Your task to perform on an android device: Show me productivity apps on the Play Store Image 0: 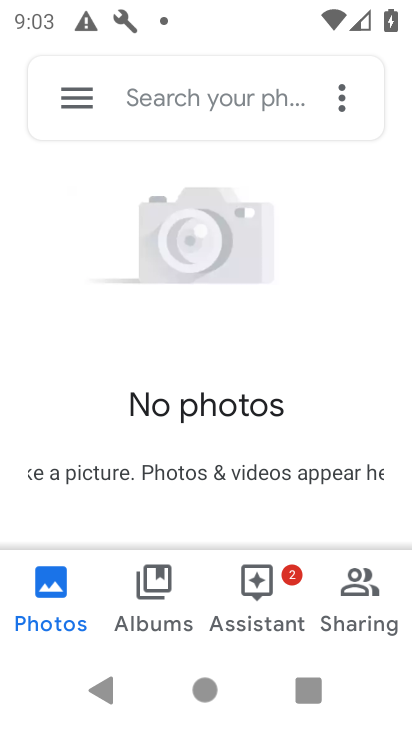
Step 0: press back button
Your task to perform on an android device: Show me productivity apps on the Play Store Image 1: 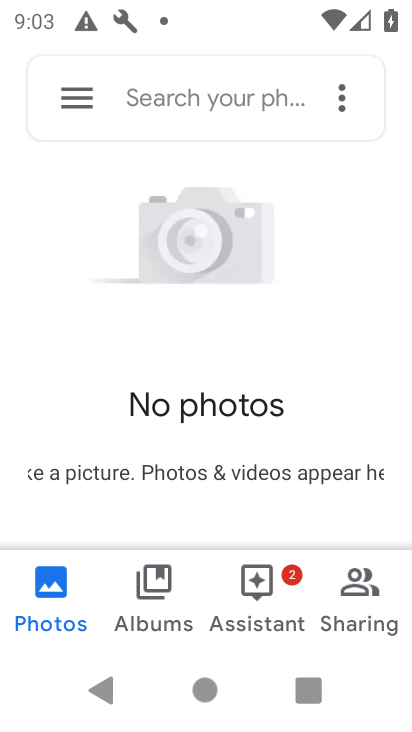
Step 1: press back button
Your task to perform on an android device: Show me productivity apps on the Play Store Image 2: 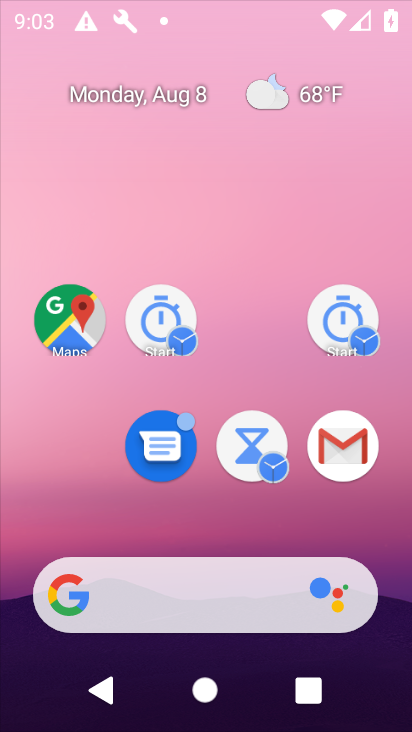
Step 2: press back button
Your task to perform on an android device: Show me productivity apps on the Play Store Image 3: 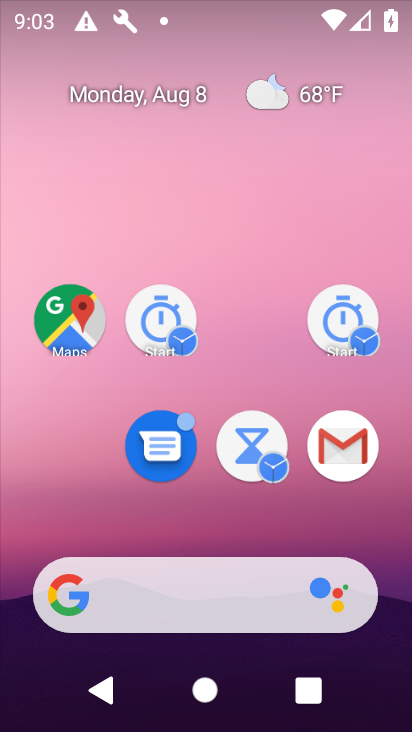
Step 3: press back button
Your task to perform on an android device: Show me productivity apps on the Play Store Image 4: 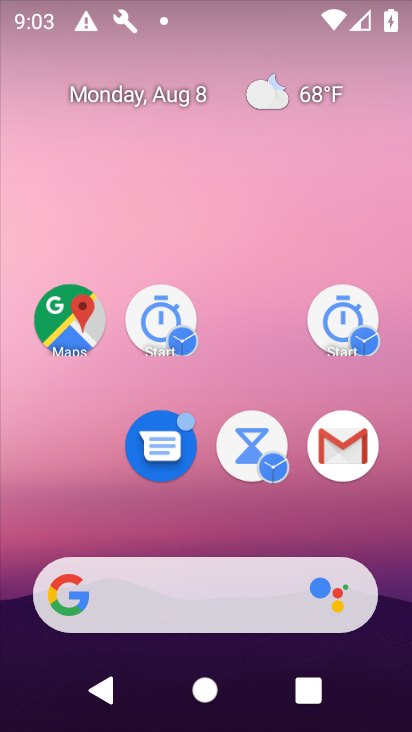
Step 4: press back button
Your task to perform on an android device: Show me productivity apps on the Play Store Image 5: 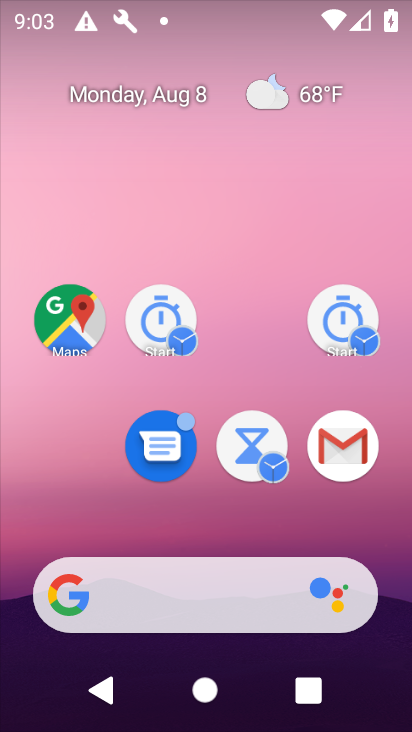
Step 5: drag from (269, 667) to (250, 175)
Your task to perform on an android device: Show me productivity apps on the Play Store Image 6: 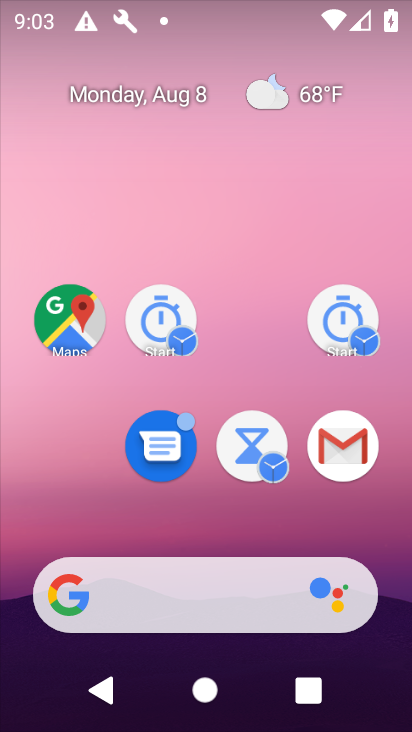
Step 6: drag from (285, 527) to (245, 158)
Your task to perform on an android device: Show me productivity apps on the Play Store Image 7: 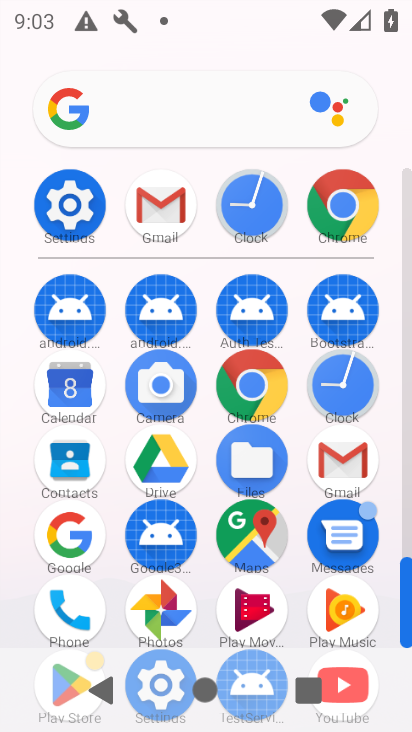
Step 7: drag from (241, 526) to (182, 116)
Your task to perform on an android device: Show me productivity apps on the Play Store Image 8: 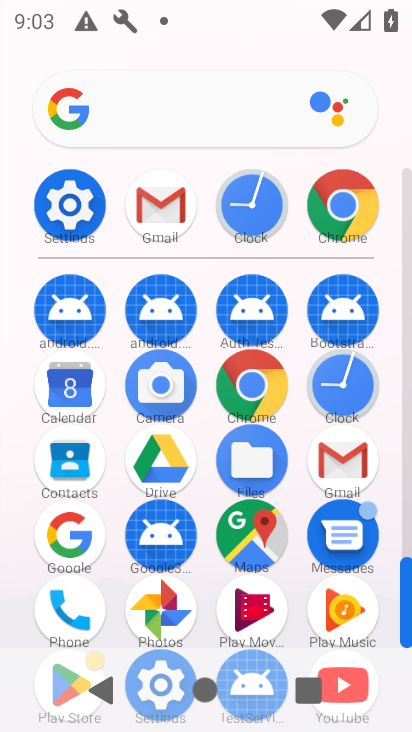
Step 8: drag from (293, 614) to (287, 191)
Your task to perform on an android device: Show me productivity apps on the Play Store Image 9: 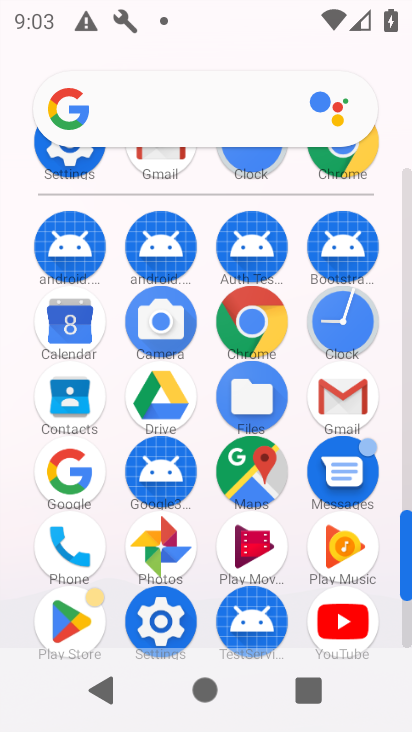
Step 9: drag from (316, 466) to (299, 314)
Your task to perform on an android device: Show me productivity apps on the Play Store Image 10: 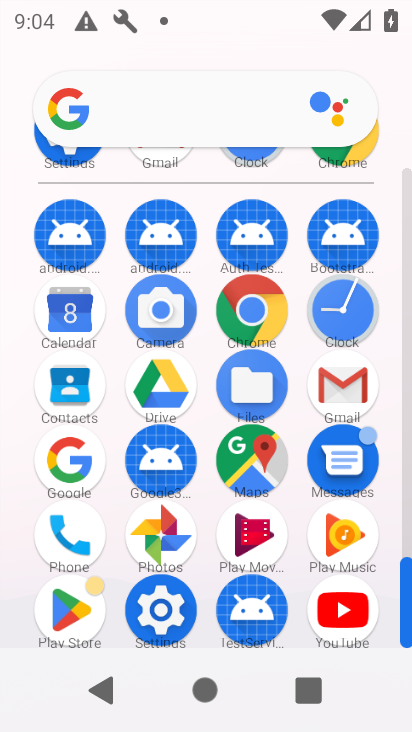
Step 10: click (62, 603)
Your task to perform on an android device: Show me productivity apps on the Play Store Image 11: 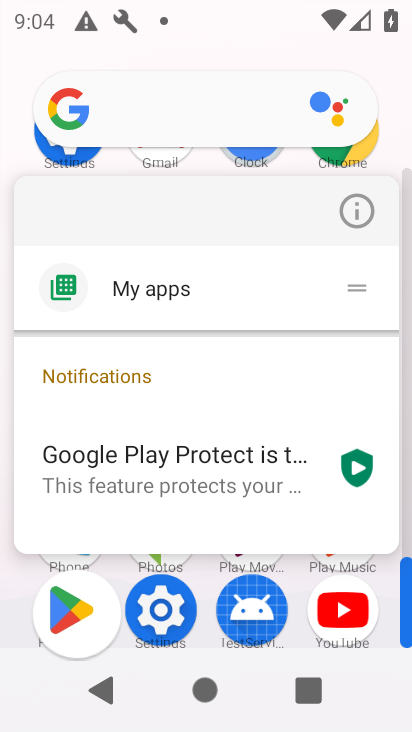
Step 11: click (77, 609)
Your task to perform on an android device: Show me productivity apps on the Play Store Image 12: 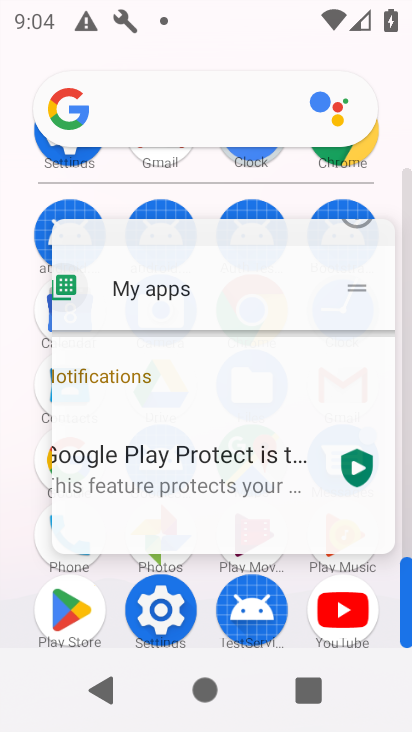
Step 12: click (80, 609)
Your task to perform on an android device: Show me productivity apps on the Play Store Image 13: 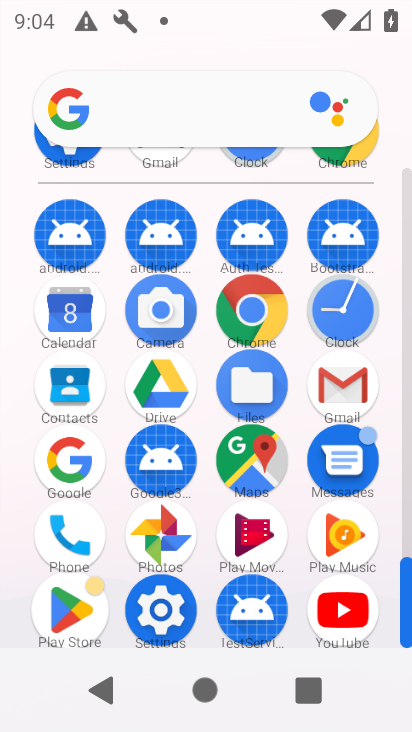
Step 13: click (80, 609)
Your task to perform on an android device: Show me productivity apps on the Play Store Image 14: 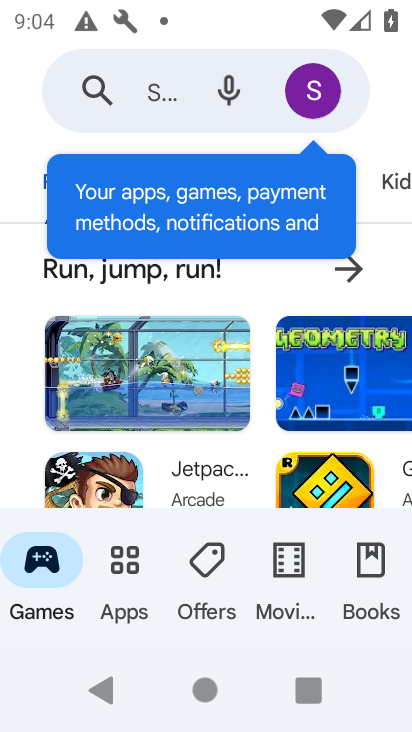
Step 14: click (184, 87)
Your task to perform on an android device: Show me productivity apps on the Play Store Image 15: 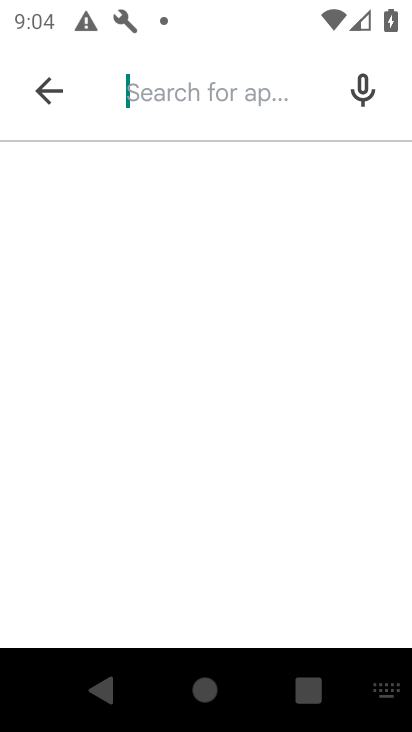
Step 15: type "productivity apps"
Your task to perform on an android device: Show me productivity apps on the Play Store Image 16: 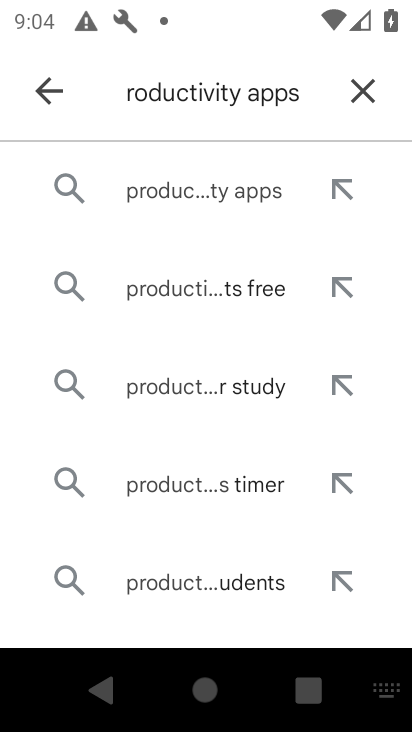
Step 16: click (240, 195)
Your task to perform on an android device: Show me productivity apps on the Play Store Image 17: 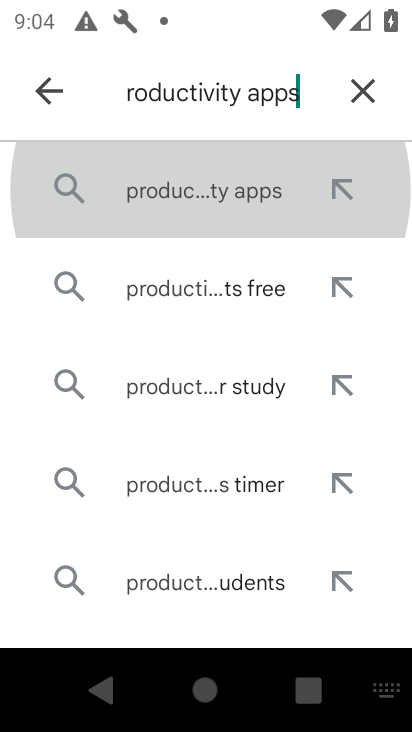
Step 17: click (241, 194)
Your task to perform on an android device: Show me productivity apps on the Play Store Image 18: 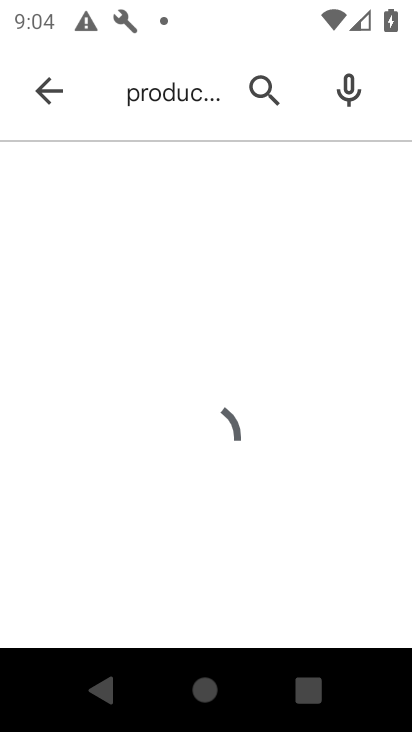
Step 18: click (241, 194)
Your task to perform on an android device: Show me productivity apps on the Play Store Image 19: 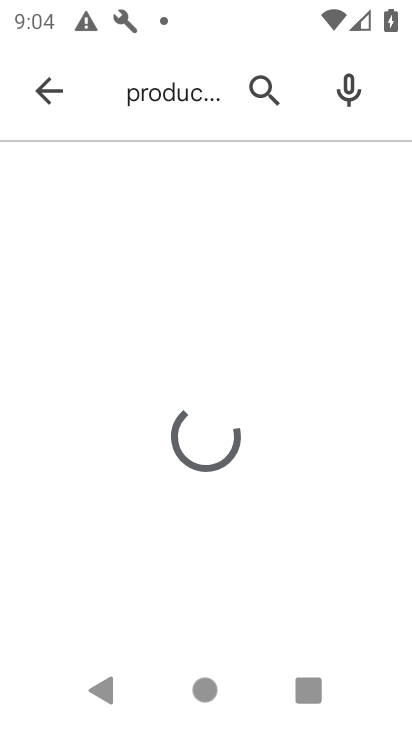
Step 19: click (241, 194)
Your task to perform on an android device: Show me productivity apps on the Play Store Image 20: 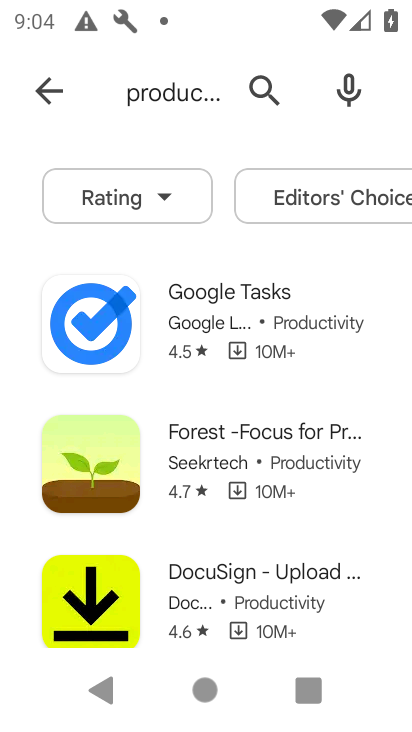
Step 20: drag from (228, 588) to (138, 127)
Your task to perform on an android device: Show me productivity apps on the Play Store Image 21: 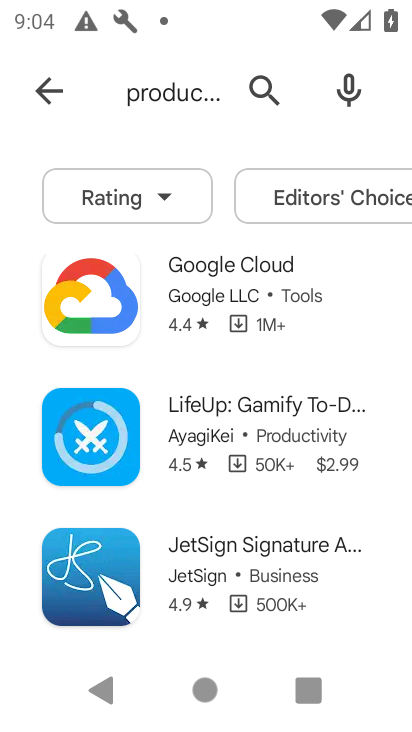
Step 21: click (140, 150)
Your task to perform on an android device: Show me productivity apps on the Play Store Image 22: 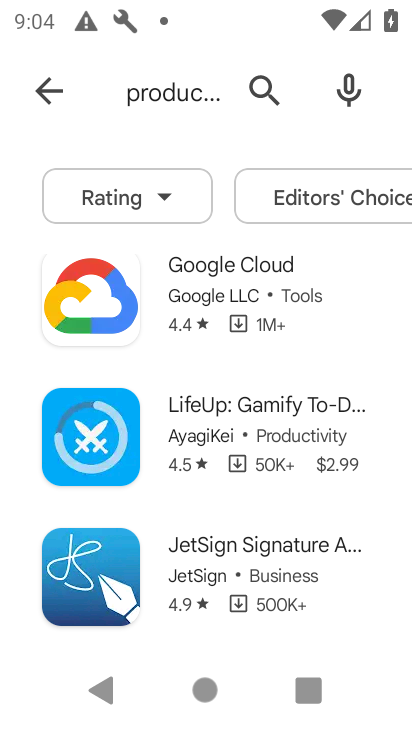
Step 22: drag from (225, 415) to (233, 123)
Your task to perform on an android device: Show me productivity apps on the Play Store Image 23: 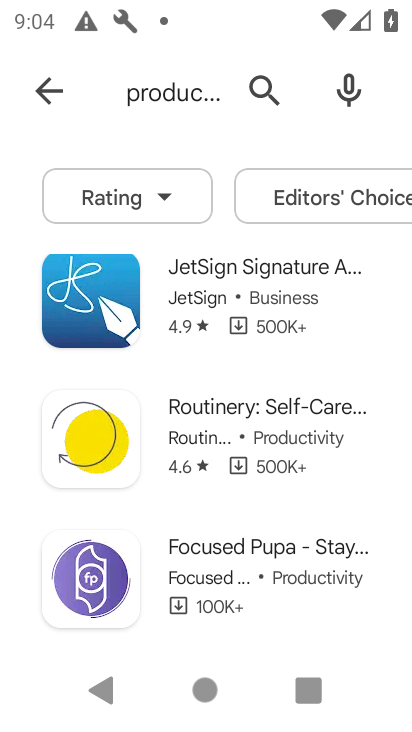
Step 23: drag from (260, 184) to (262, 59)
Your task to perform on an android device: Show me productivity apps on the Play Store Image 24: 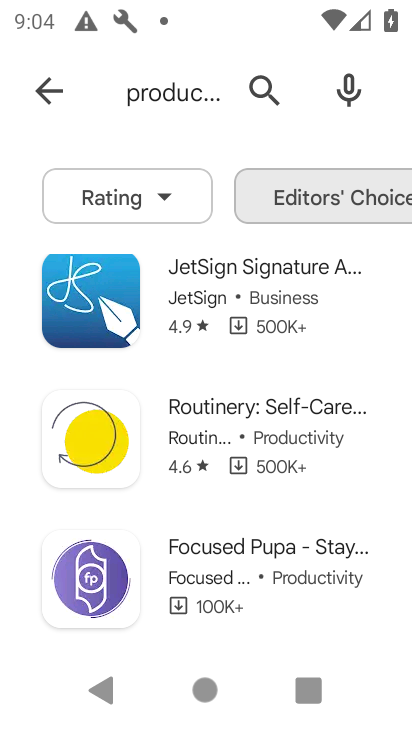
Step 24: click (306, 227)
Your task to perform on an android device: Show me productivity apps on the Play Store Image 25: 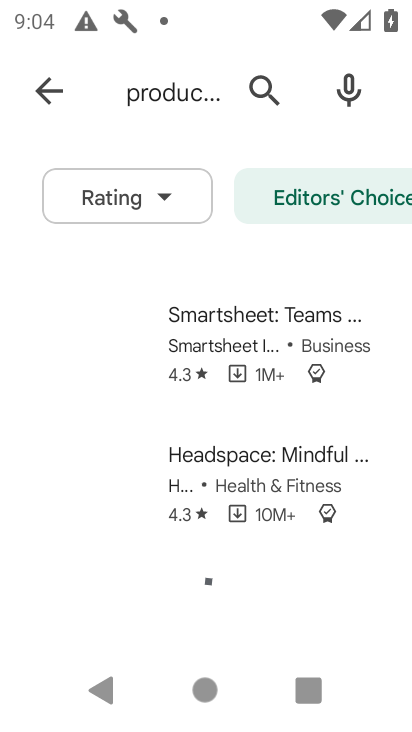
Step 25: task complete